Your task to perform on an android device: toggle wifi Image 0: 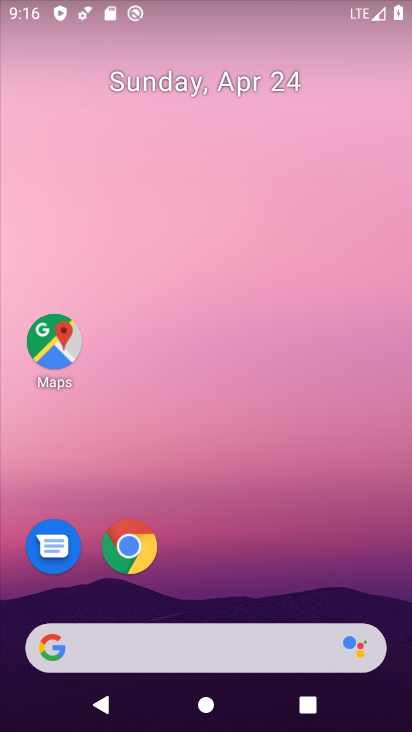
Step 0: drag from (290, 601) to (248, 200)
Your task to perform on an android device: toggle wifi Image 1: 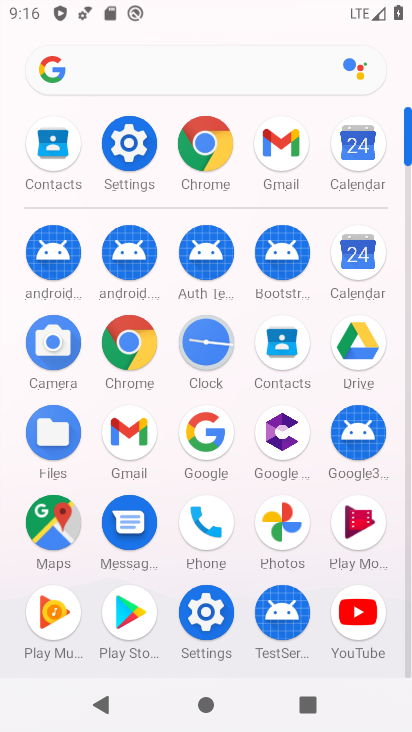
Step 1: click (121, 173)
Your task to perform on an android device: toggle wifi Image 2: 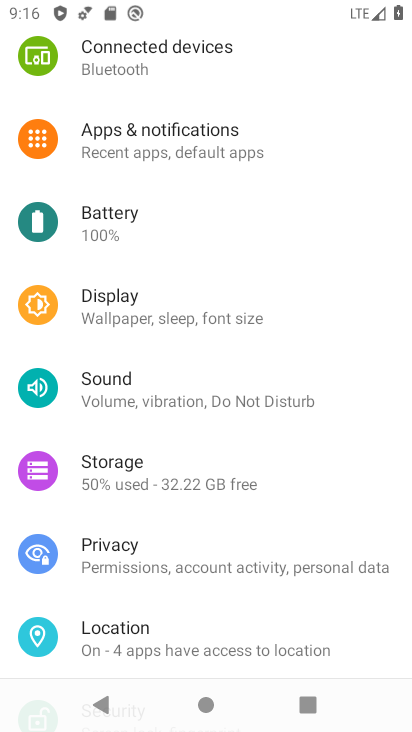
Step 2: drag from (244, 197) to (248, 731)
Your task to perform on an android device: toggle wifi Image 3: 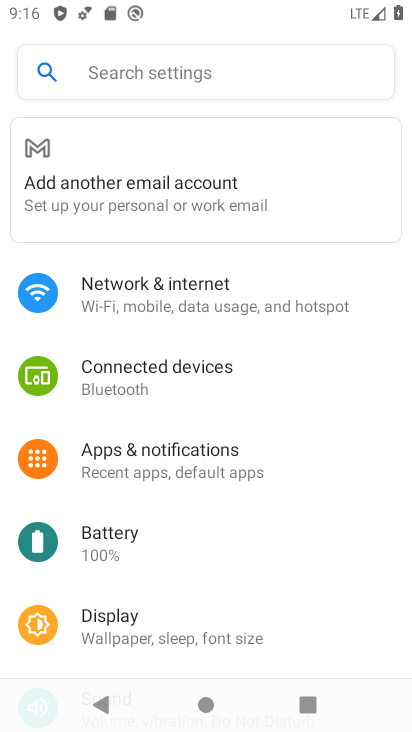
Step 3: click (216, 304)
Your task to perform on an android device: toggle wifi Image 4: 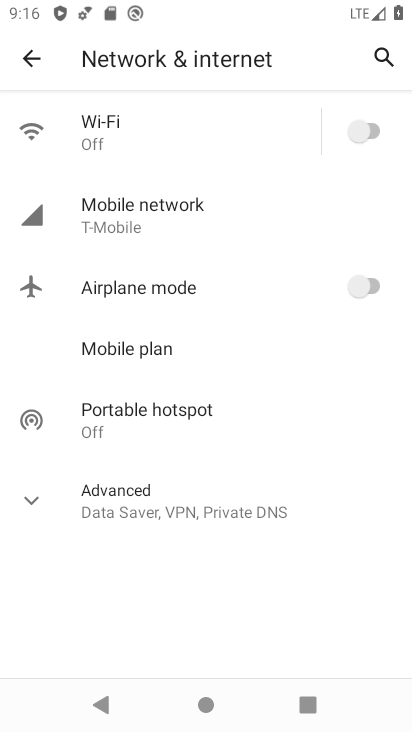
Step 4: click (375, 125)
Your task to perform on an android device: toggle wifi Image 5: 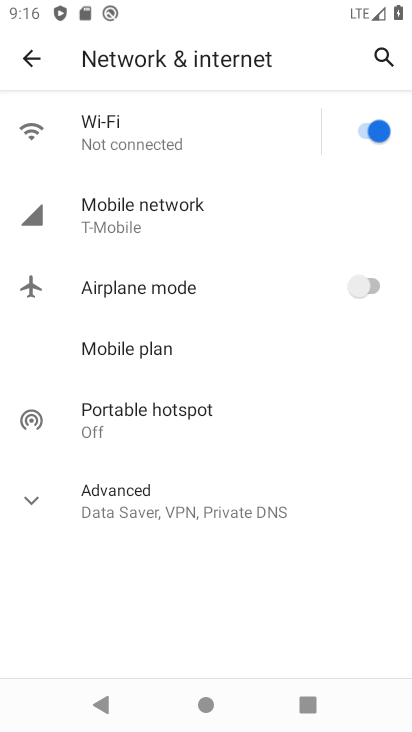
Step 5: task complete